Your task to perform on an android device: Go to eBay Image 0: 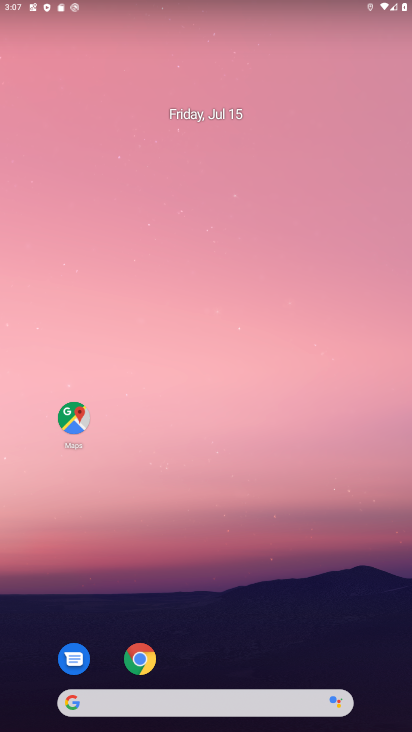
Step 0: click (94, 701)
Your task to perform on an android device: Go to eBay Image 1: 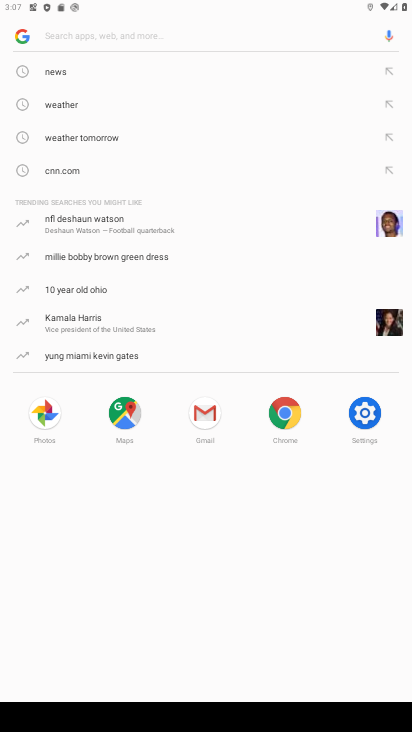
Step 1: type "eBay"
Your task to perform on an android device: Go to eBay Image 2: 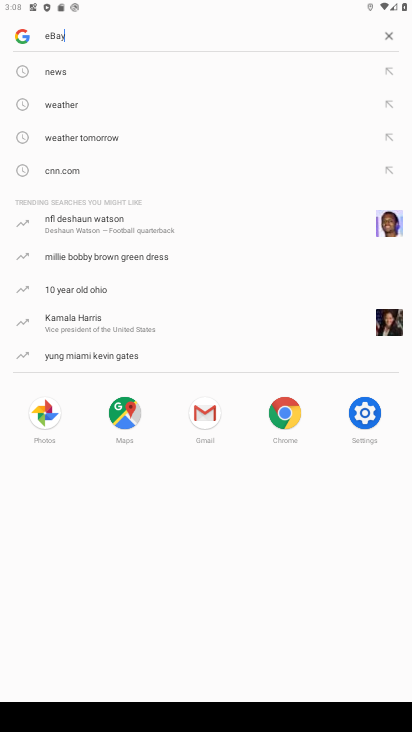
Step 2: type ""
Your task to perform on an android device: Go to eBay Image 3: 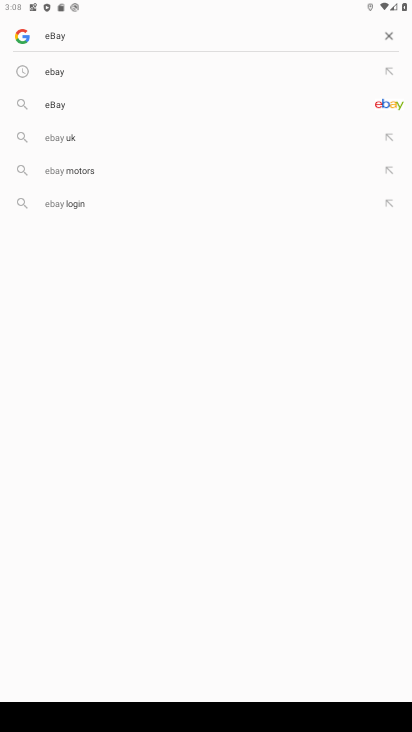
Step 3: click (68, 75)
Your task to perform on an android device: Go to eBay Image 4: 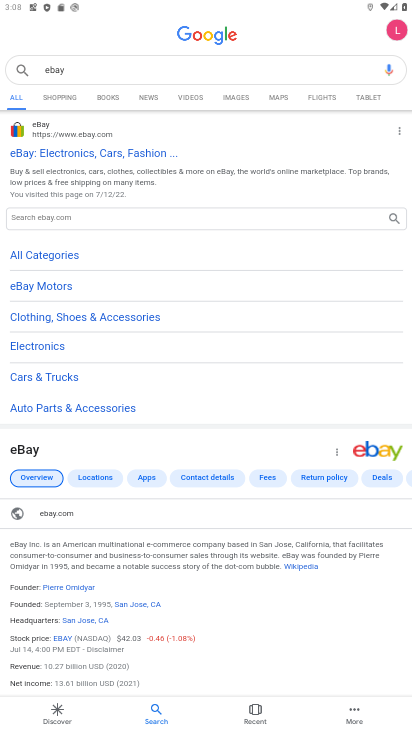
Step 4: task complete